Your task to perform on an android device: delete the emails in spam in the gmail app Image 0: 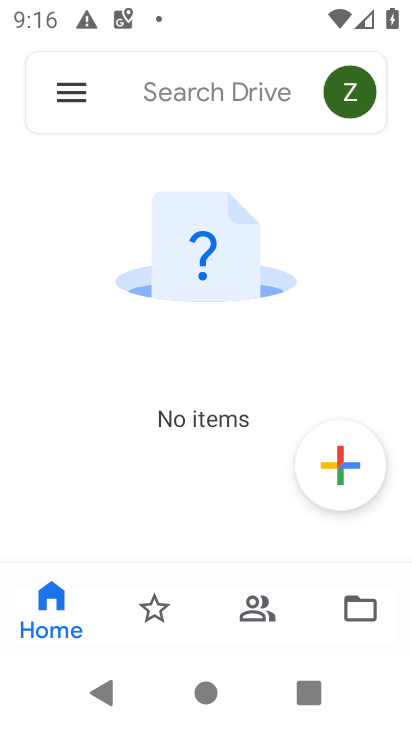
Step 0: click (405, 321)
Your task to perform on an android device: delete the emails in spam in the gmail app Image 1: 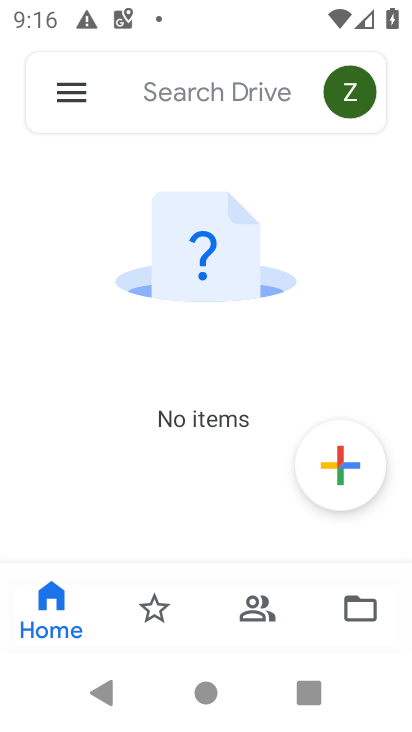
Step 1: task complete